Your task to perform on an android device: install app "Google Pay: Save, Pay, Manage" Image 0: 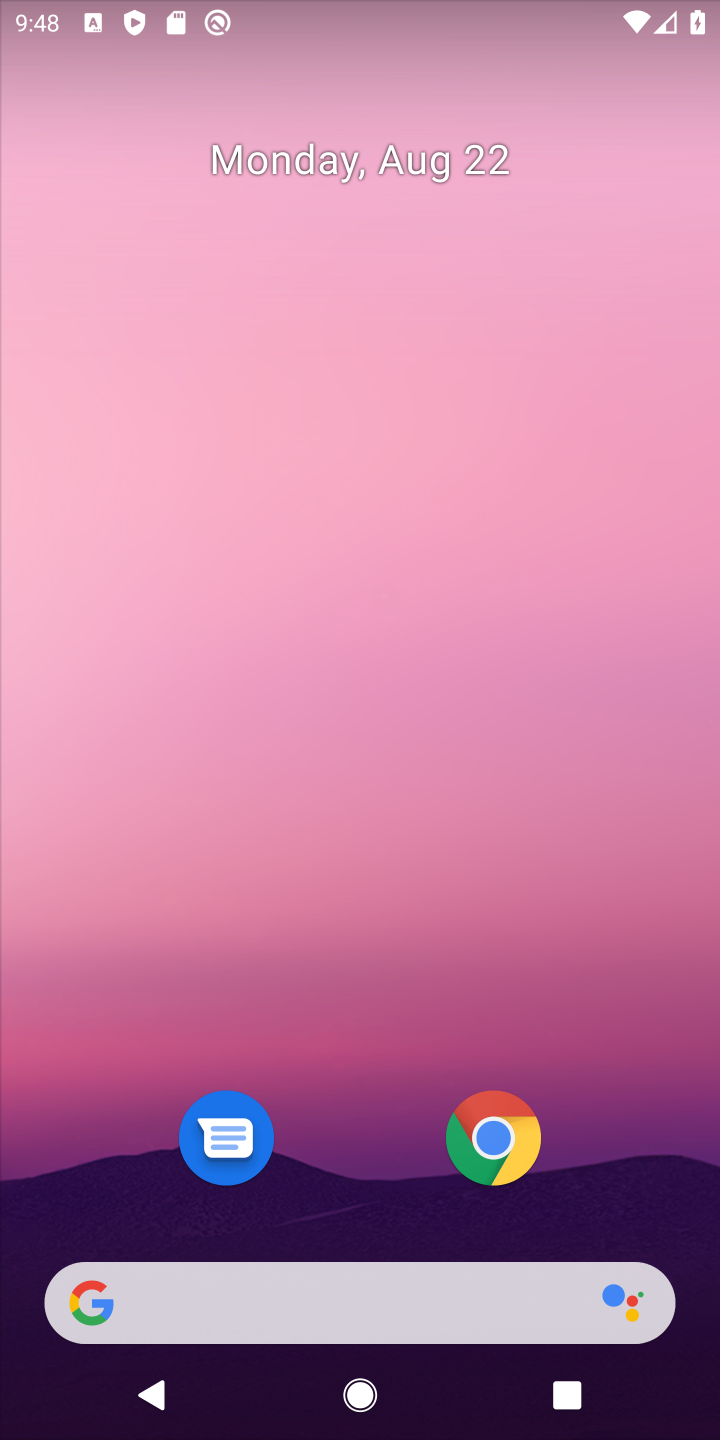
Step 0: press home button
Your task to perform on an android device: install app "Google Pay: Save, Pay, Manage" Image 1: 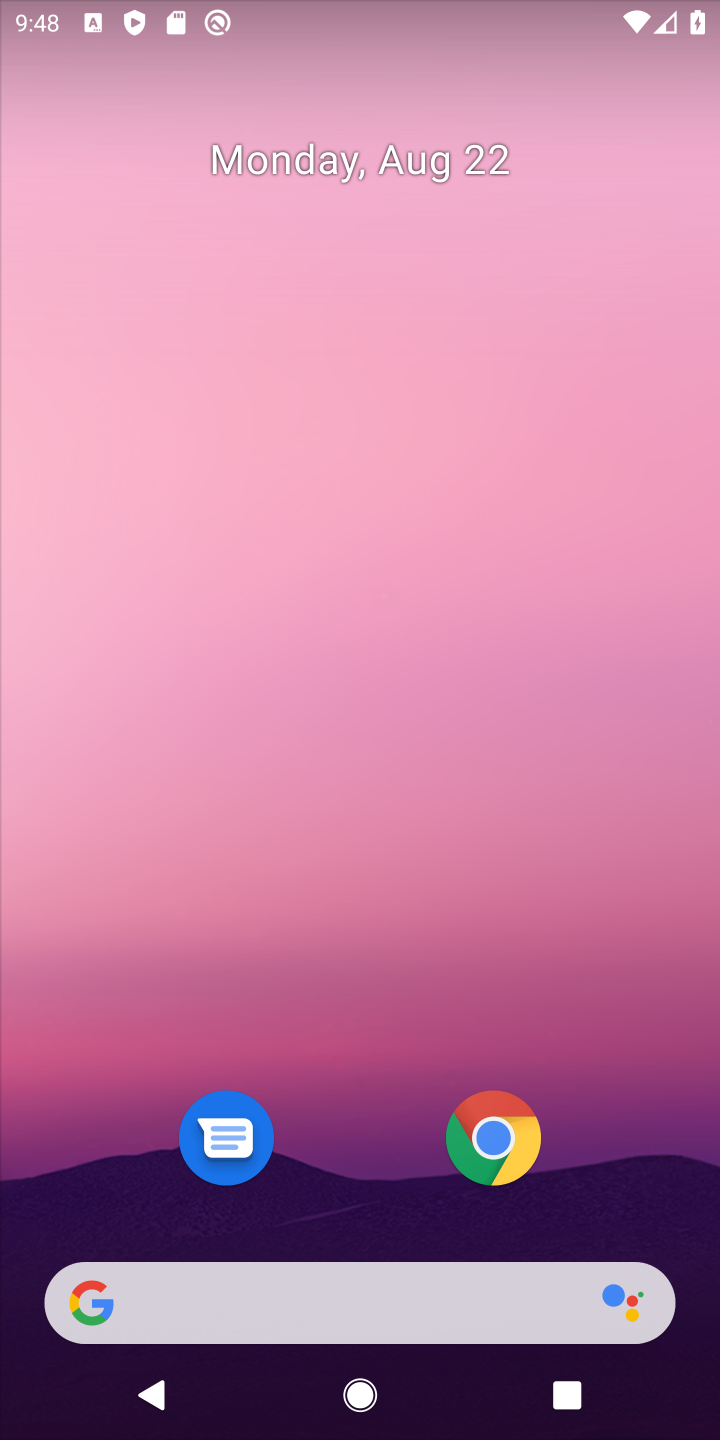
Step 1: drag from (370, 1153) to (418, 21)
Your task to perform on an android device: install app "Google Pay: Save, Pay, Manage" Image 2: 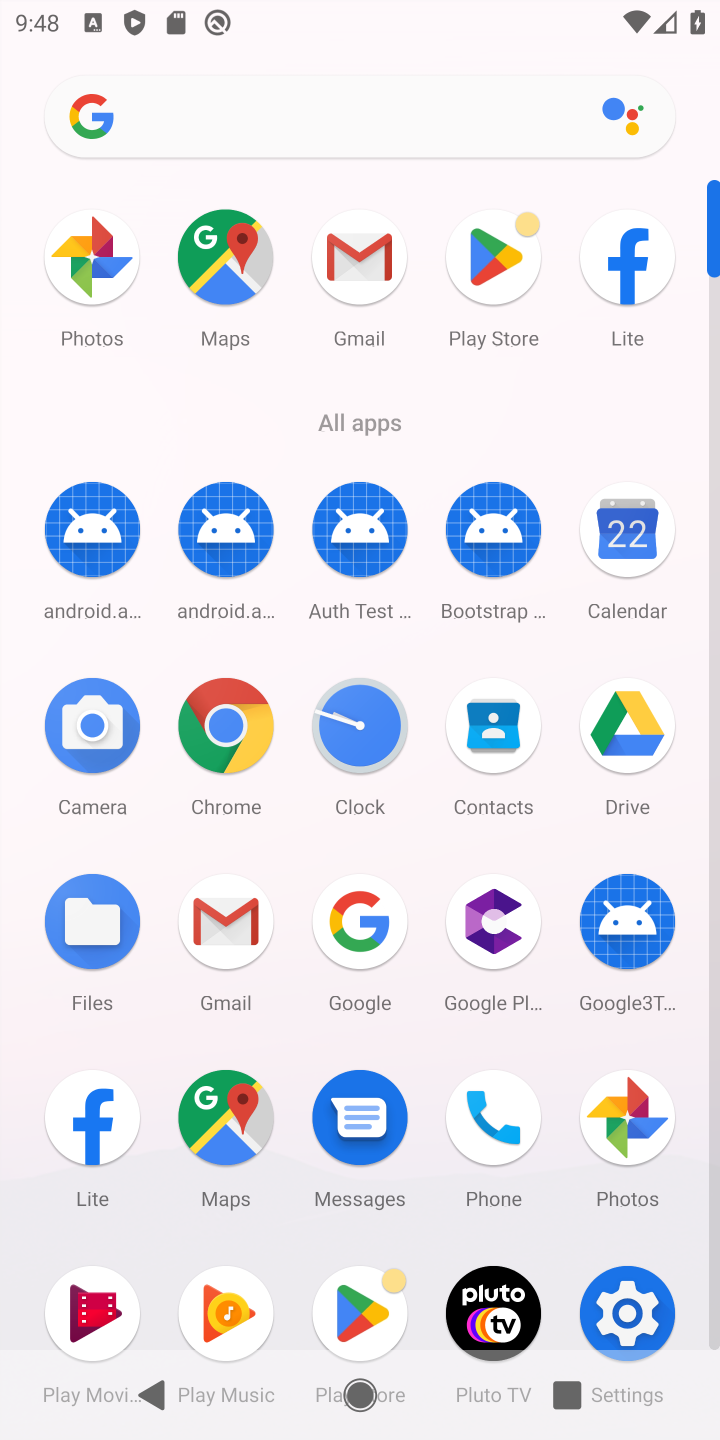
Step 2: click (495, 315)
Your task to perform on an android device: install app "Google Pay: Save, Pay, Manage" Image 3: 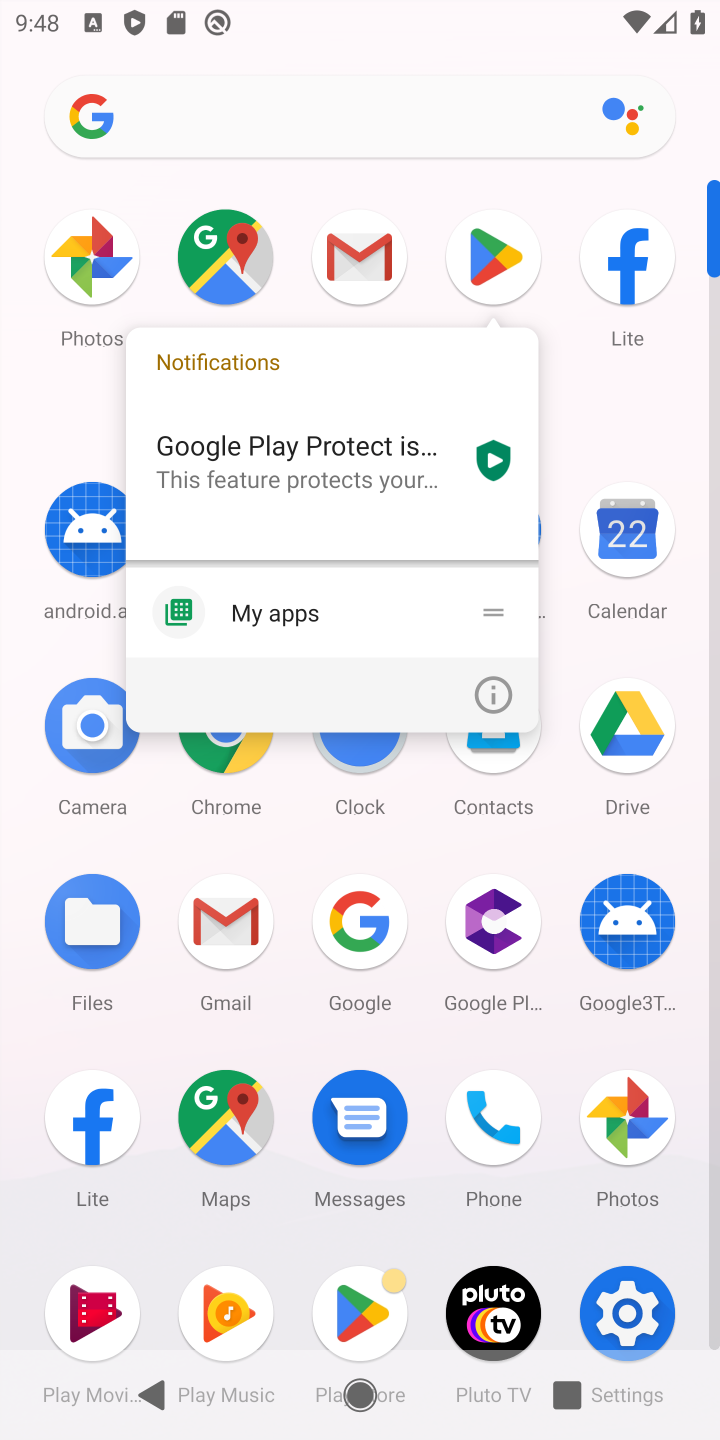
Step 3: click (493, 252)
Your task to perform on an android device: install app "Google Pay: Save, Pay, Manage" Image 4: 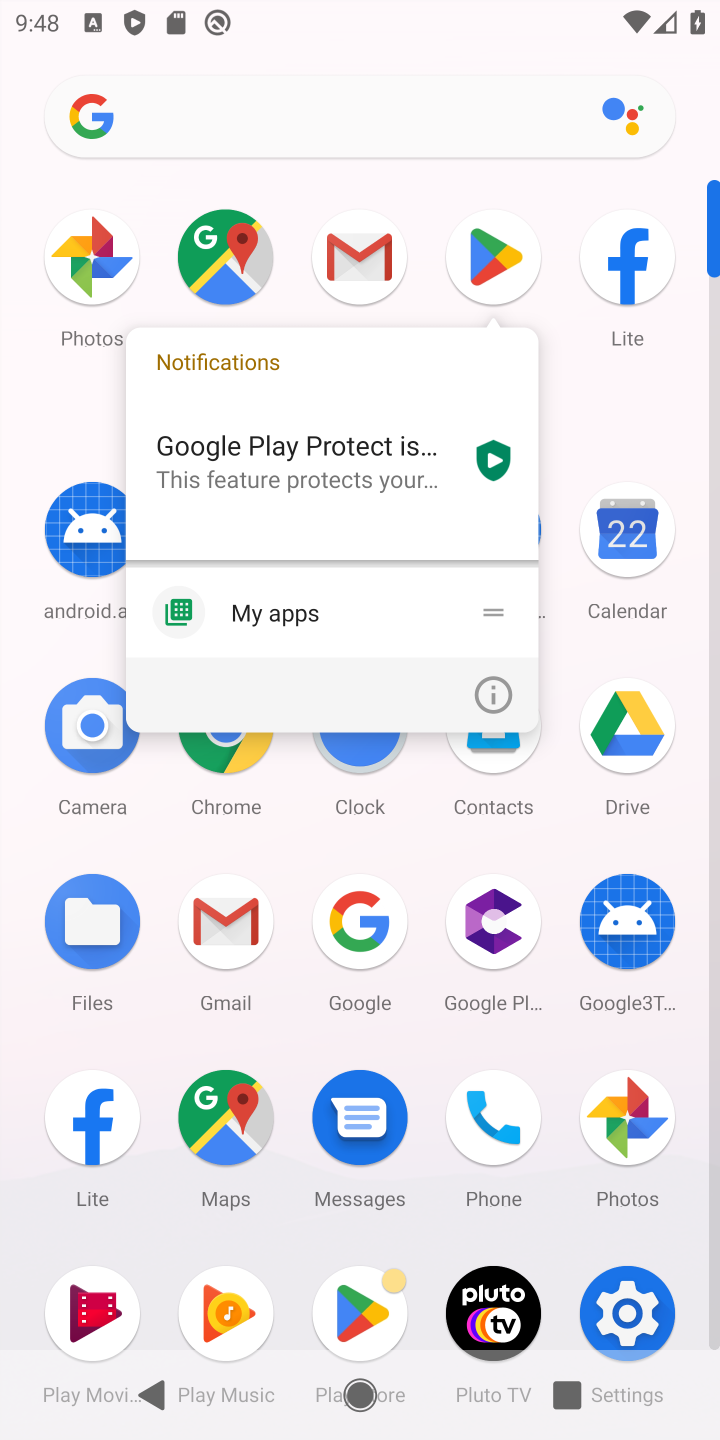
Step 4: click (479, 250)
Your task to perform on an android device: install app "Google Pay: Save, Pay, Manage" Image 5: 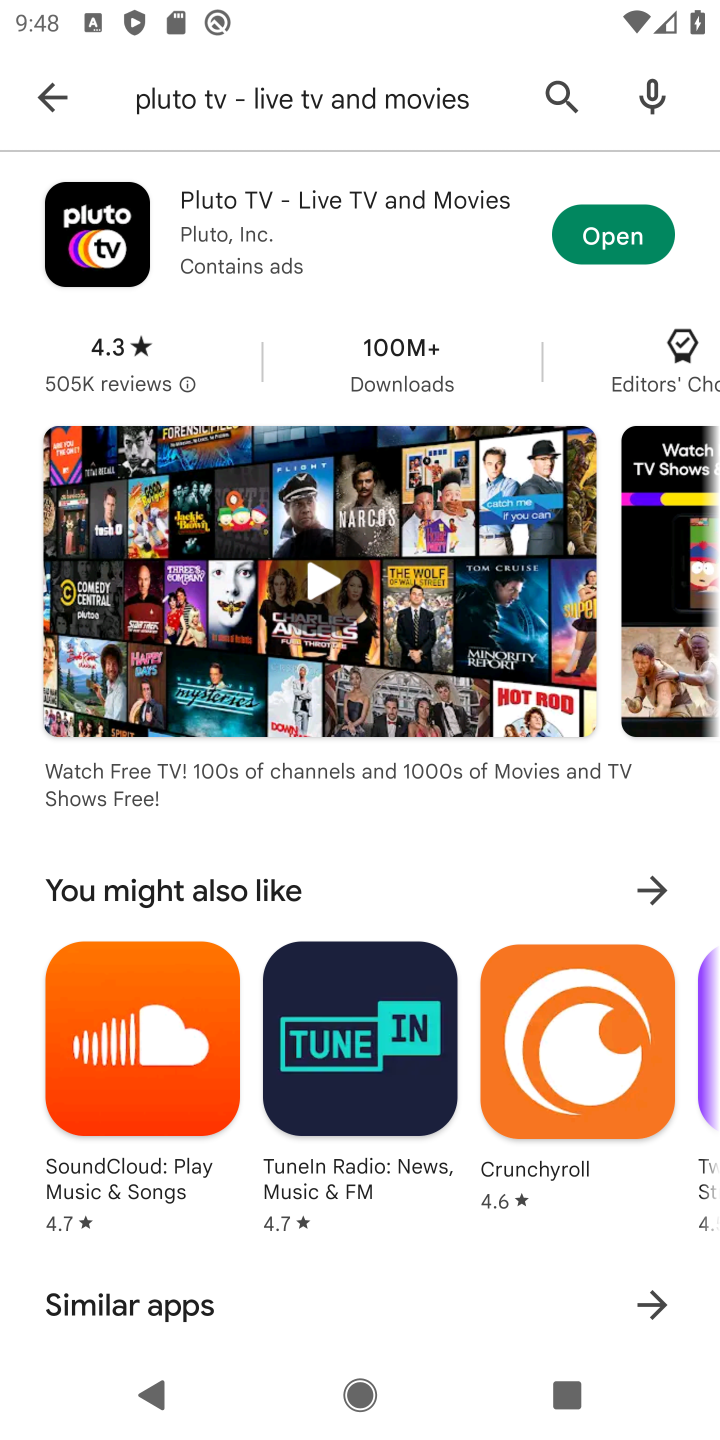
Step 5: click (565, 107)
Your task to perform on an android device: install app "Google Pay: Save, Pay, Manage" Image 6: 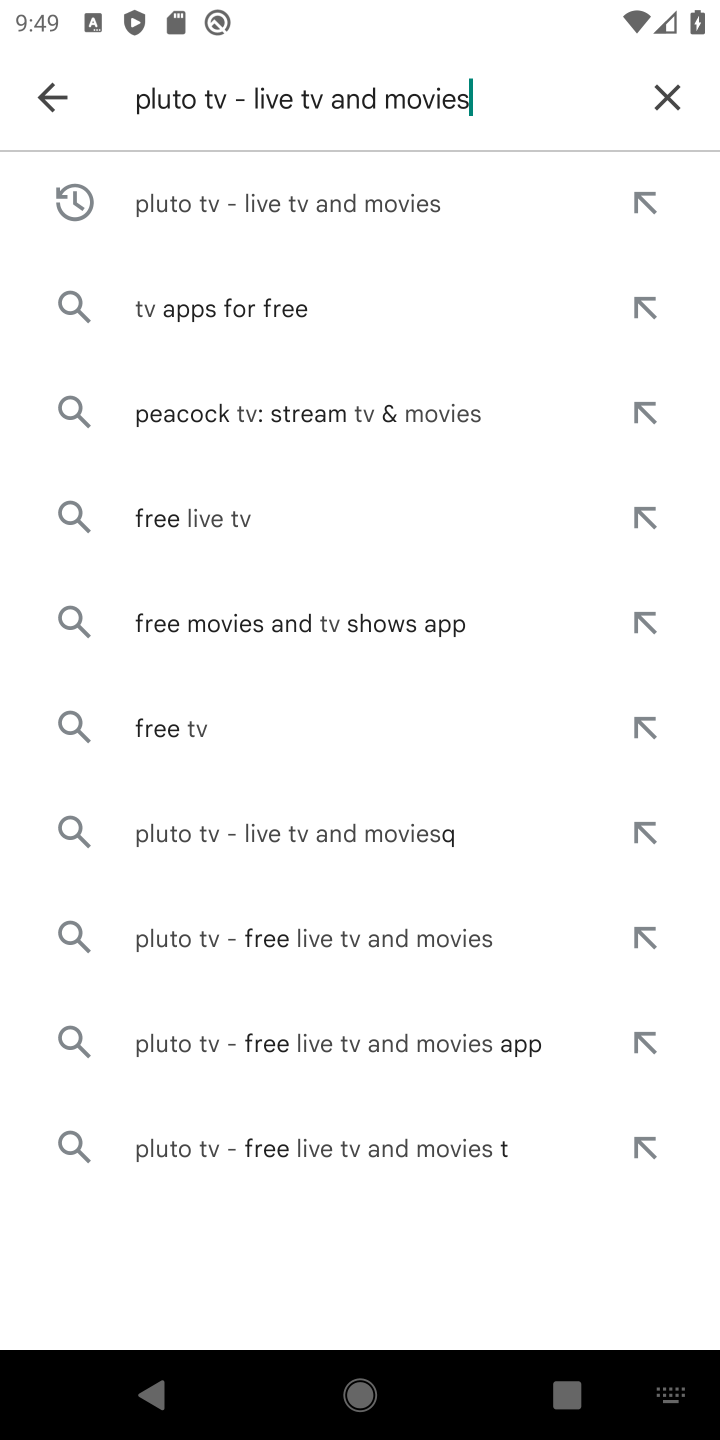
Step 6: click (680, 92)
Your task to perform on an android device: install app "Google Pay: Save, Pay, Manage" Image 7: 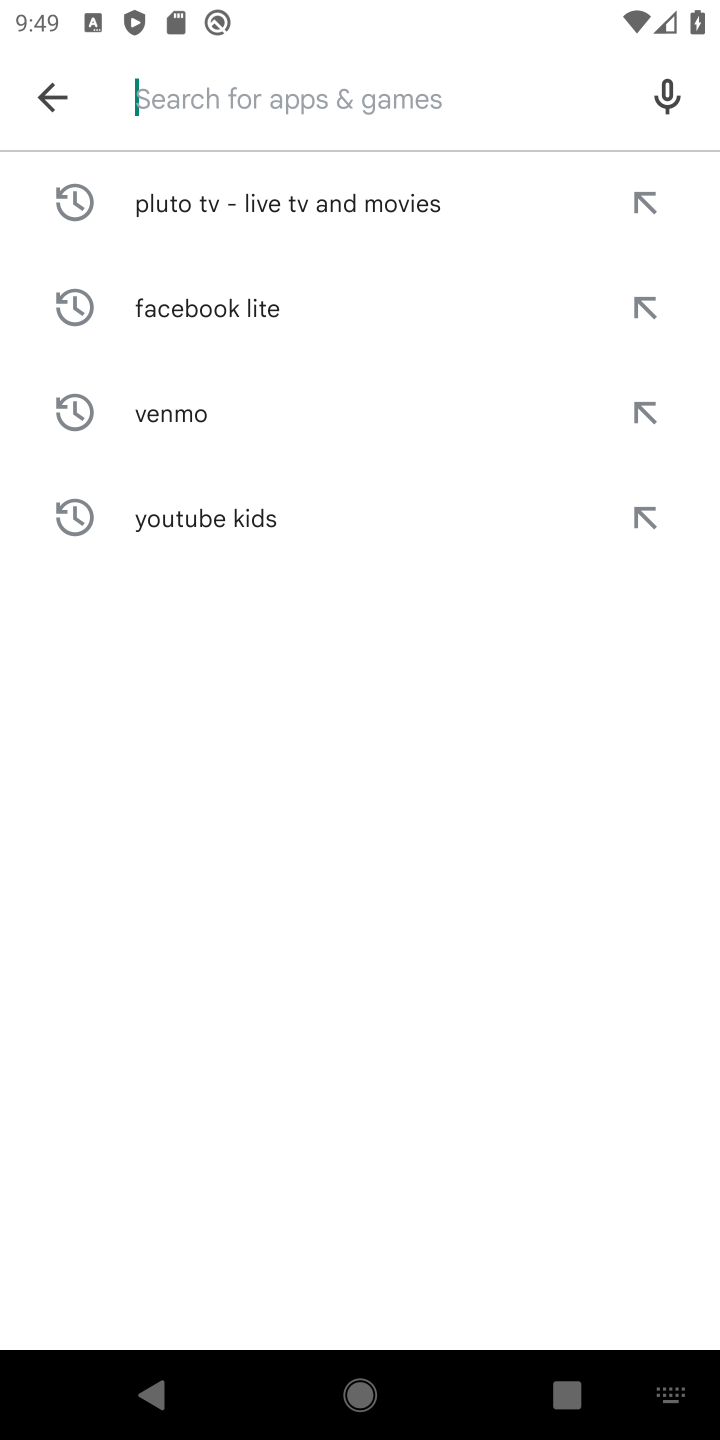
Step 7: type "Google Pay: Save, Pay, Manage"
Your task to perform on an android device: install app "Google Pay: Save, Pay, Manage" Image 8: 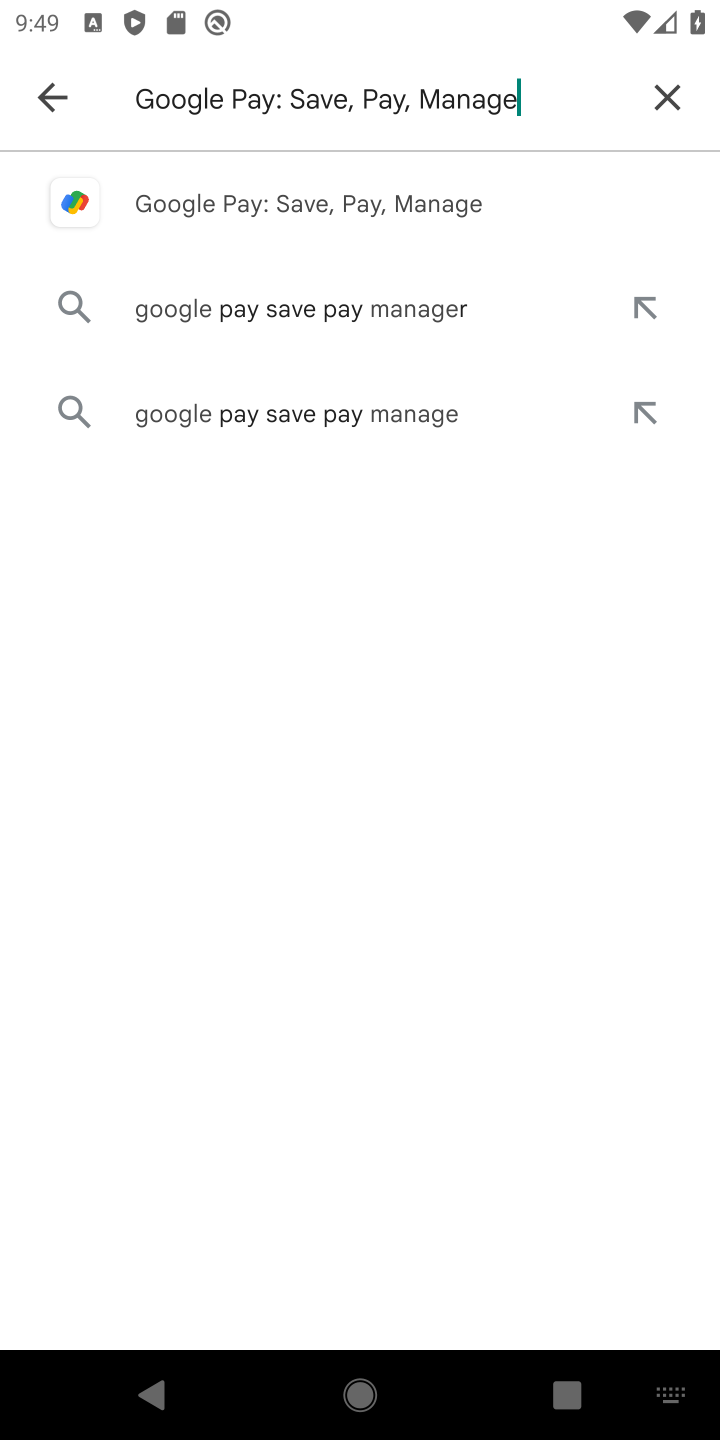
Step 8: click (191, 219)
Your task to perform on an android device: install app "Google Pay: Save, Pay, Manage" Image 9: 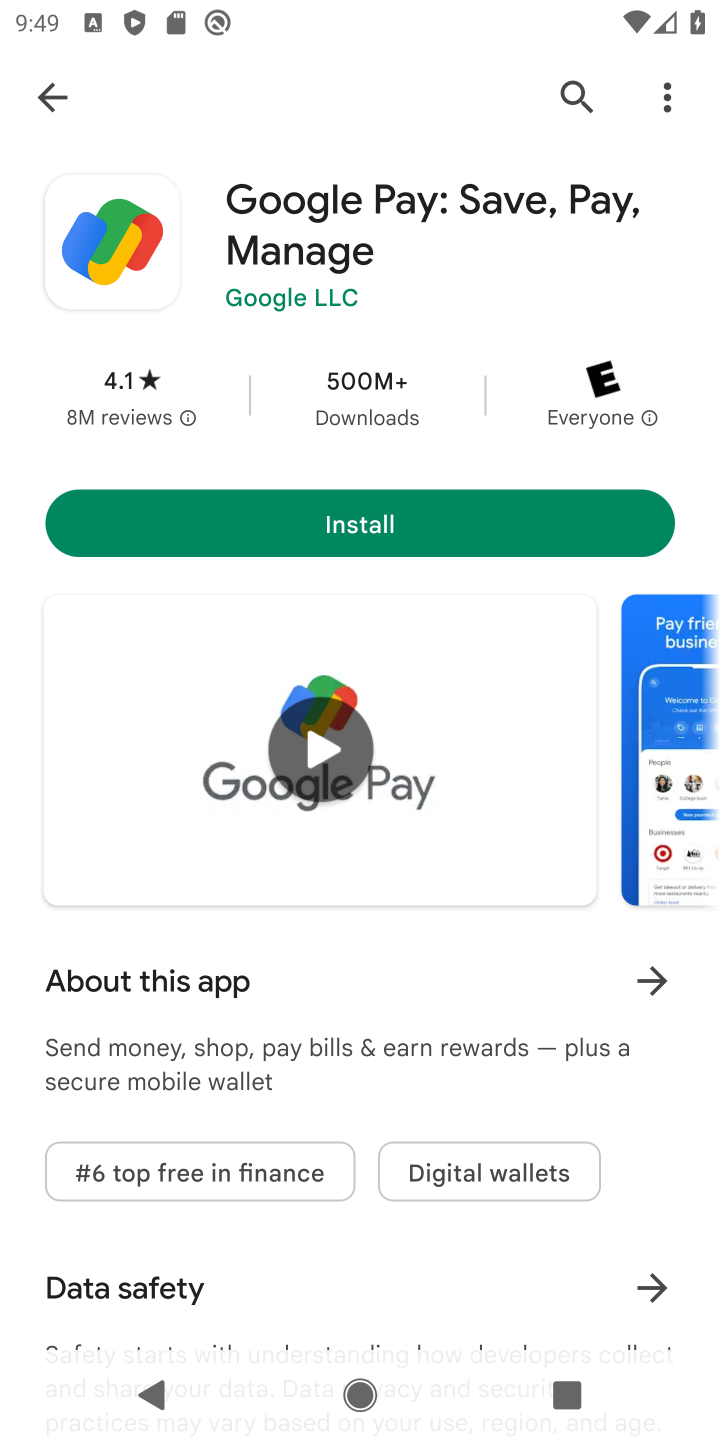
Step 9: click (376, 520)
Your task to perform on an android device: install app "Google Pay: Save, Pay, Manage" Image 10: 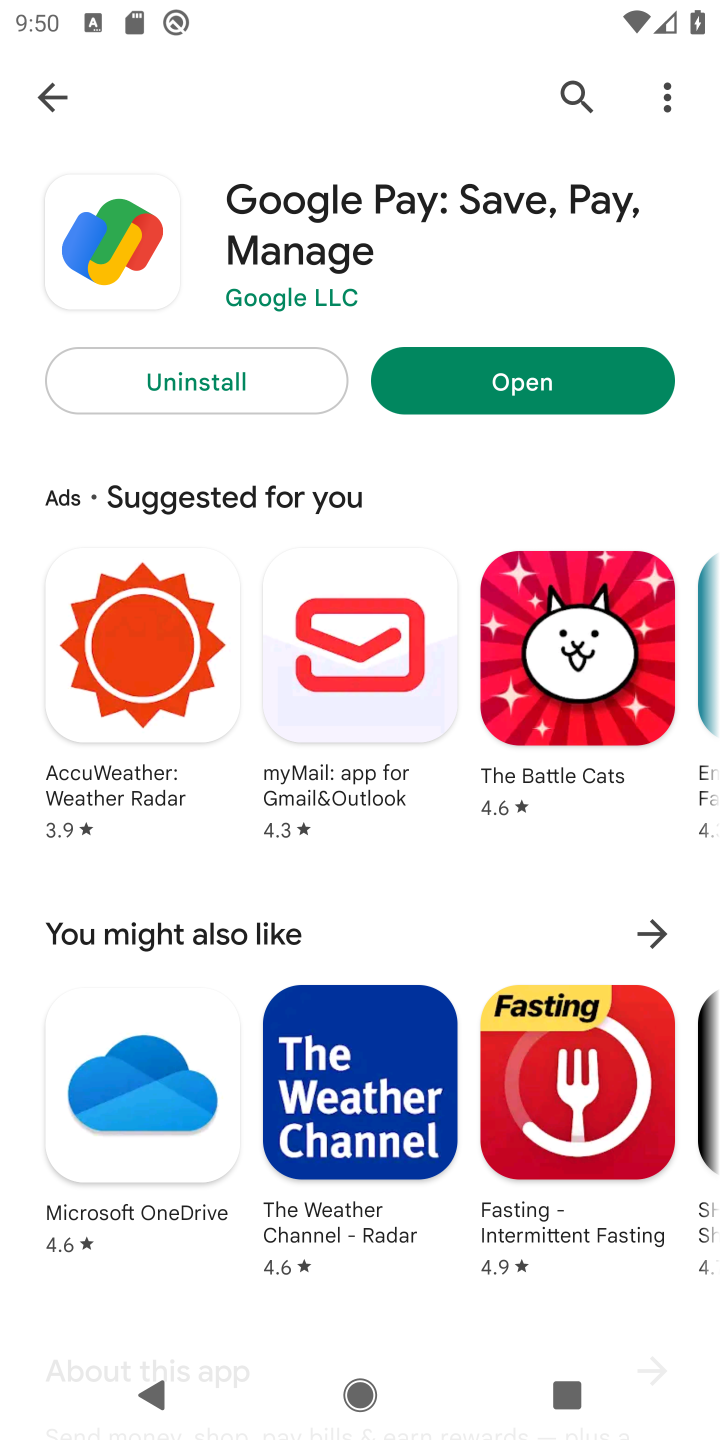
Step 10: click (529, 383)
Your task to perform on an android device: install app "Google Pay: Save, Pay, Manage" Image 11: 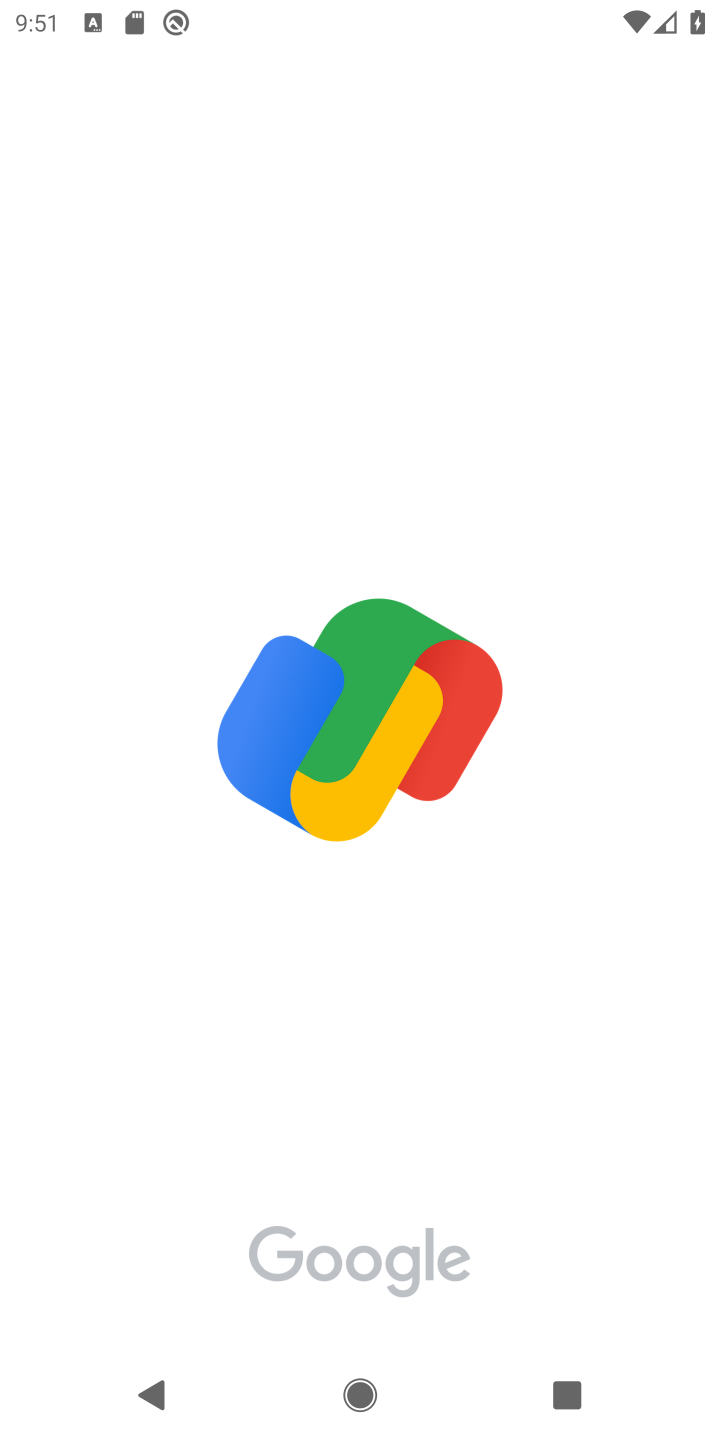
Step 11: task complete